Your task to perform on an android device: turn on javascript in the chrome app Image 0: 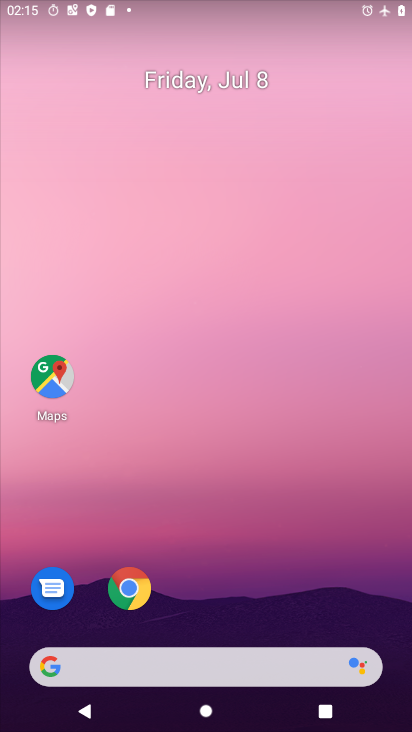
Step 0: click (274, 136)
Your task to perform on an android device: turn on javascript in the chrome app Image 1: 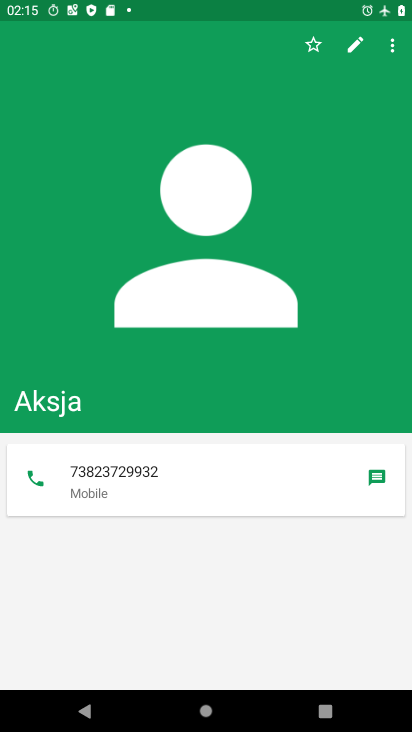
Step 1: press home button
Your task to perform on an android device: turn on javascript in the chrome app Image 2: 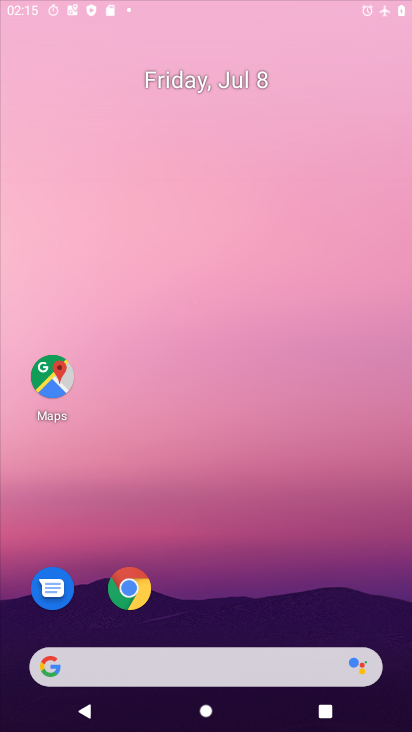
Step 2: drag from (234, 611) to (274, 89)
Your task to perform on an android device: turn on javascript in the chrome app Image 3: 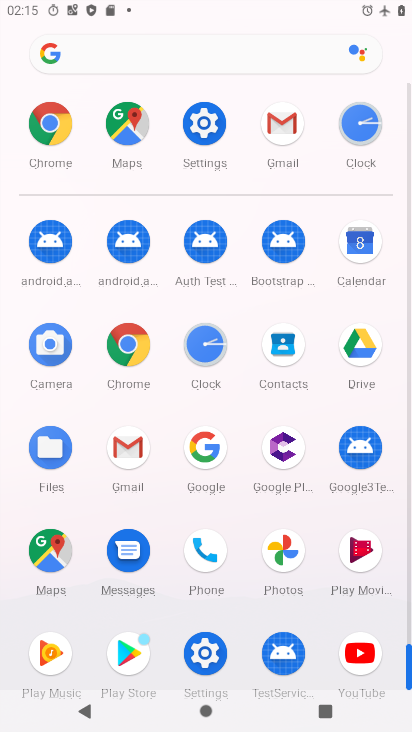
Step 3: click (51, 126)
Your task to perform on an android device: turn on javascript in the chrome app Image 4: 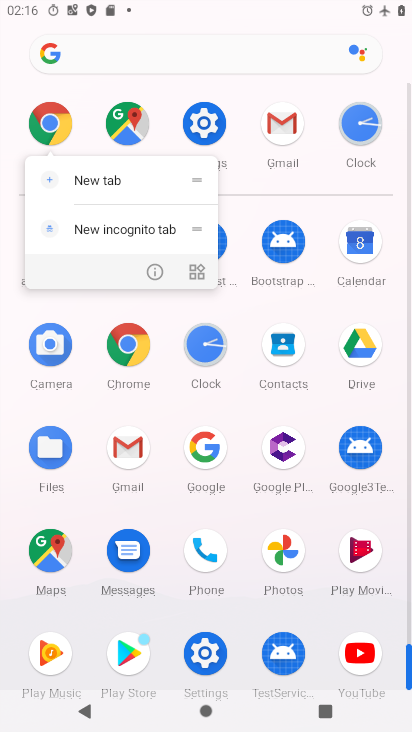
Step 4: click (157, 266)
Your task to perform on an android device: turn on javascript in the chrome app Image 5: 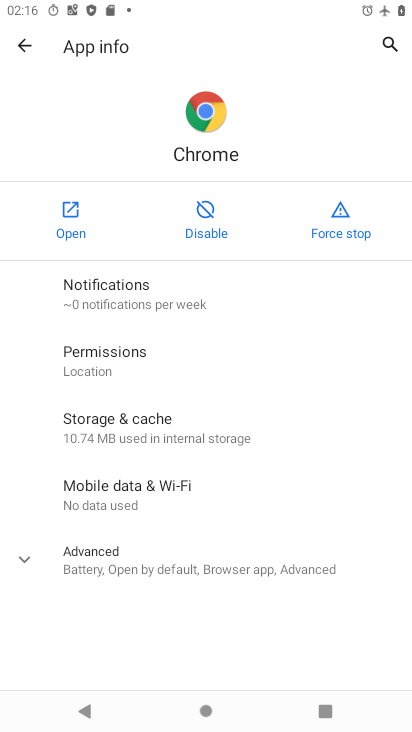
Step 5: click (64, 198)
Your task to perform on an android device: turn on javascript in the chrome app Image 6: 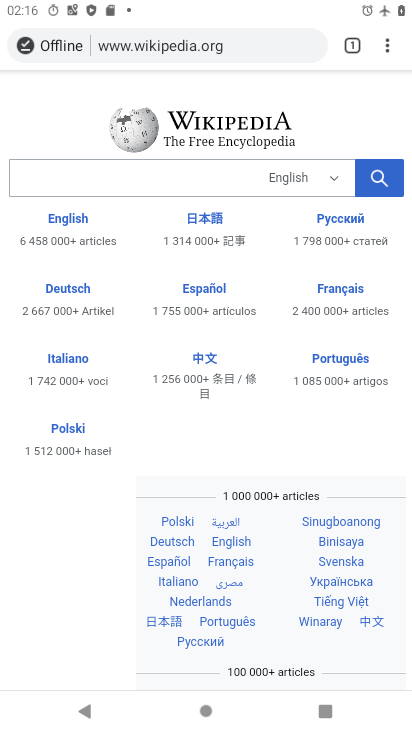
Step 6: click (390, 33)
Your task to perform on an android device: turn on javascript in the chrome app Image 7: 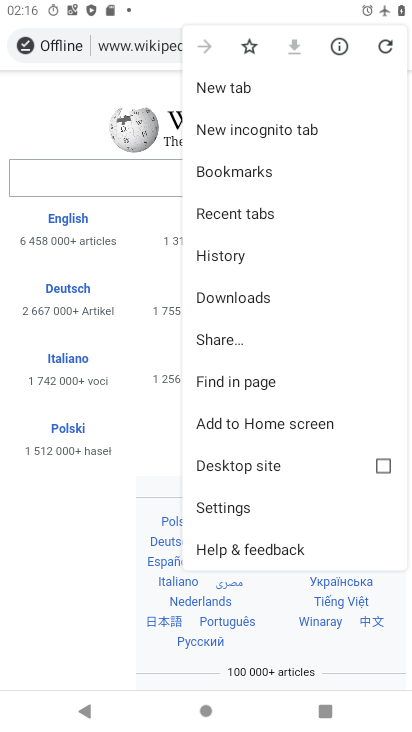
Step 7: click (234, 503)
Your task to perform on an android device: turn on javascript in the chrome app Image 8: 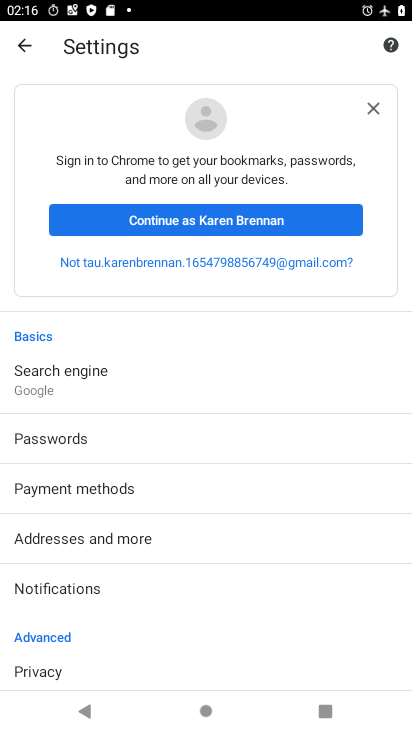
Step 8: drag from (199, 590) to (182, 236)
Your task to perform on an android device: turn on javascript in the chrome app Image 9: 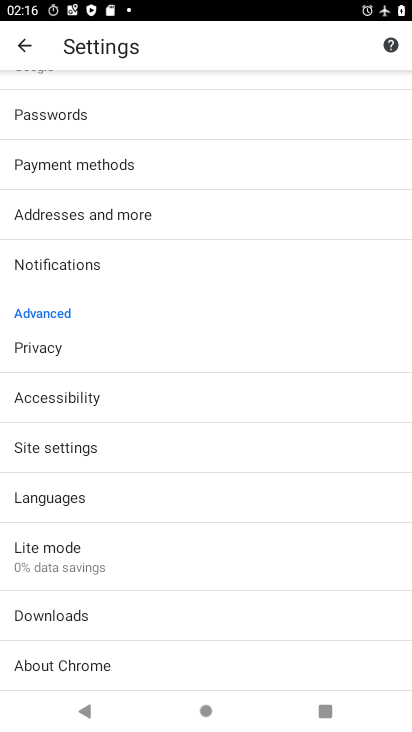
Step 9: click (119, 445)
Your task to perform on an android device: turn on javascript in the chrome app Image 10: 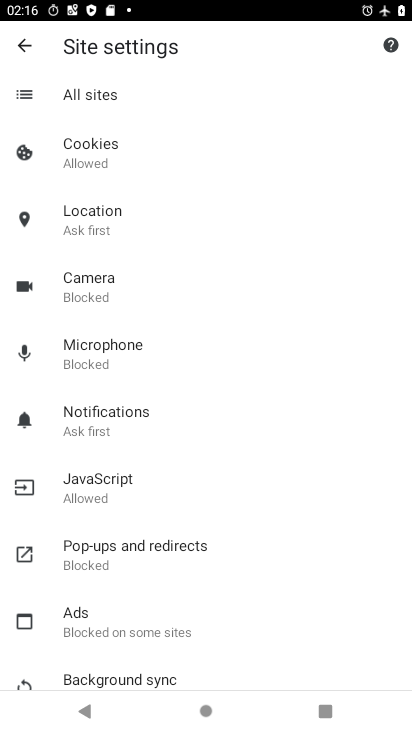
Step 10: click (136, 472)
Your task to perform on an android device: turn on javascript in the chrome app Image 11: 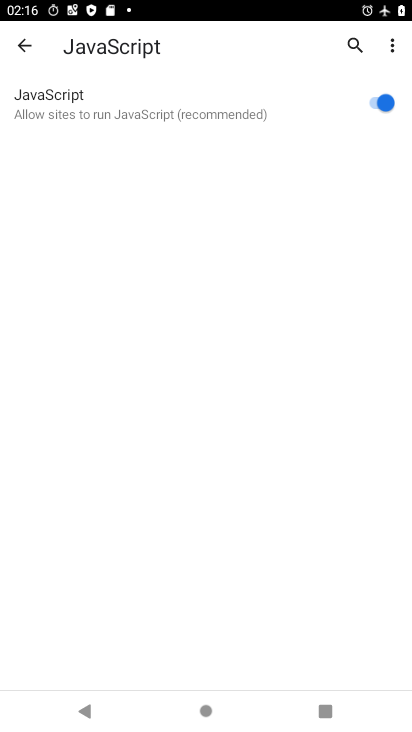
Step 11: task complete